Your task to perform on an android device: change your default location settings in chrome Image 0: 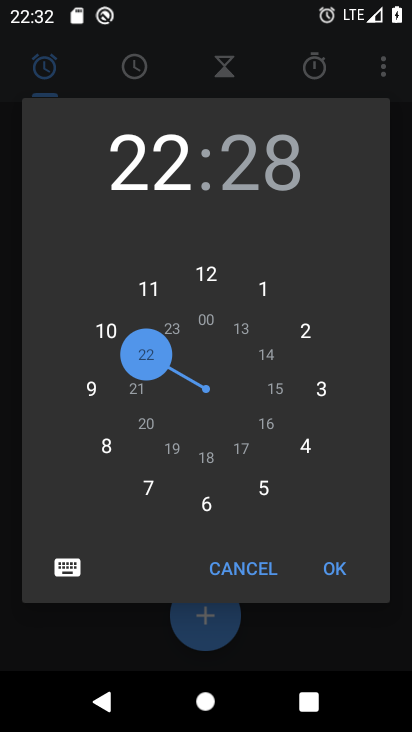
Step 0: press home button
Your task to perform on an android device: change your default location settings in chrome Image 1: 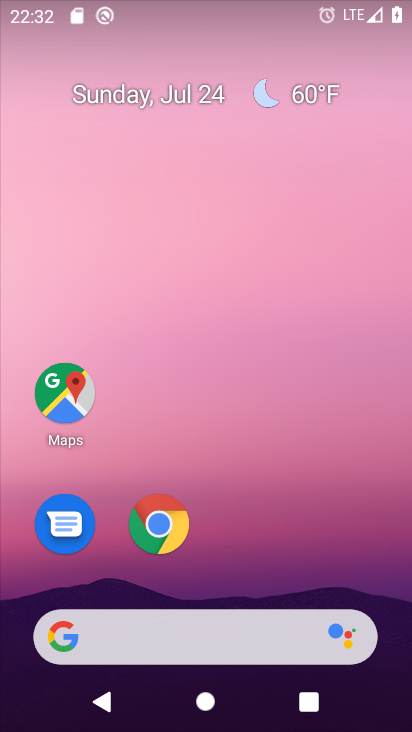
Step 1: click (162, 530)
Your task to perform on an android device: change your default location settings in chrome Image 2: 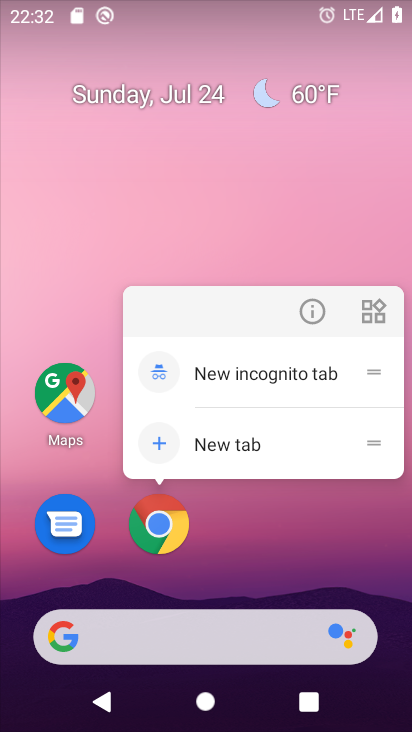
Step 2: click (160, 522)
Your task to perform on an android device: change your default location settings in chrome Image 3: 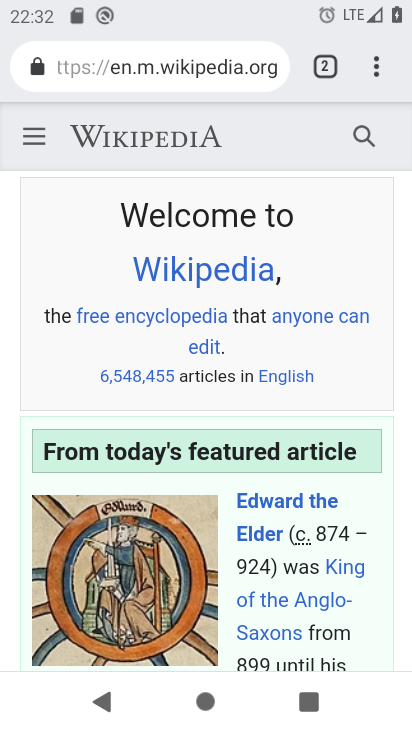
Step 3: click (366, 78)
Your task to perform on an android device: change your default location settings in chrome Image 4: 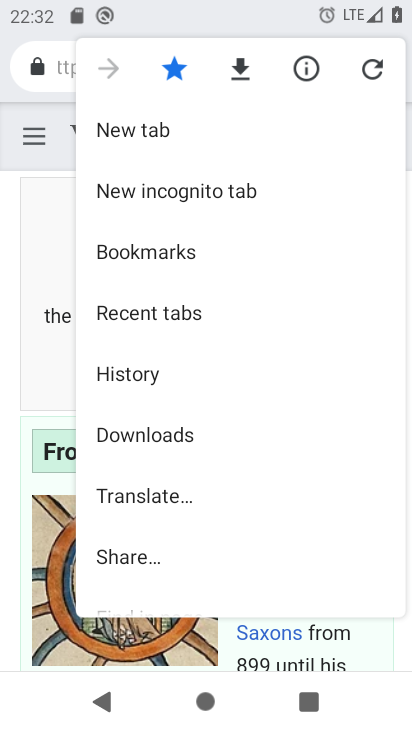
Step 4: drag from (243, 459) to (317, 137)
Your task to perform on an android device: change your default location settings in chrome Image 5: 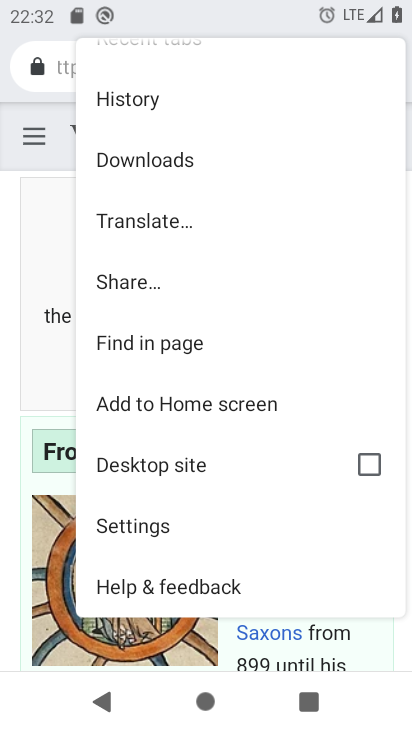
Step 5: click (149, 521)
Your task to perform on an android device: change your default location settings in chrome Image 6: 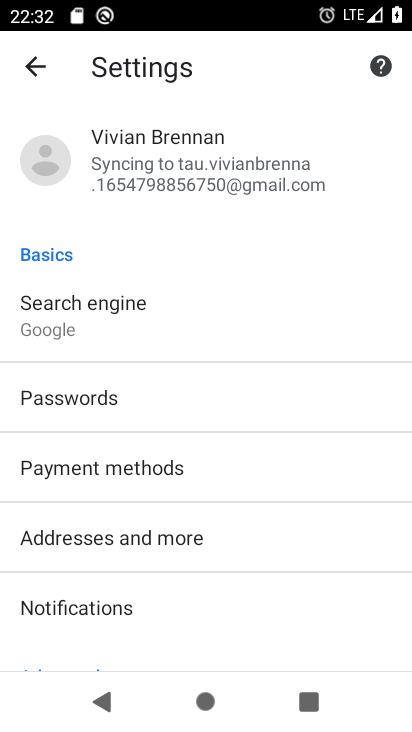
Step 6: drag from (201, 482) to (248, 249)
Your task to perform on an android device: change your default location settings in chrome Image 7: 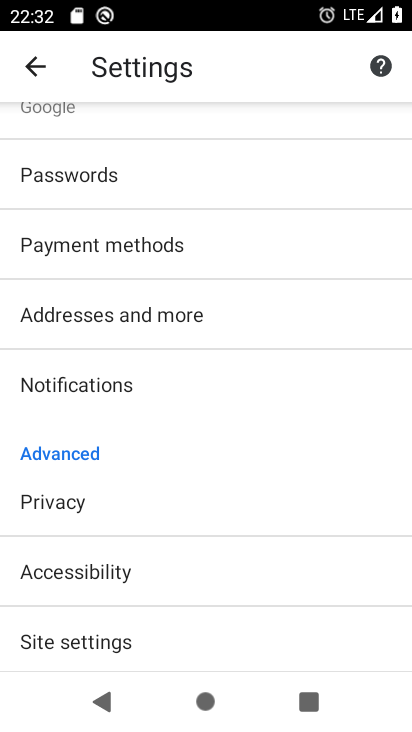
Step 7: click (125, 636)
Your task to perform on an android device: change your default location settings in chrome Image 8: 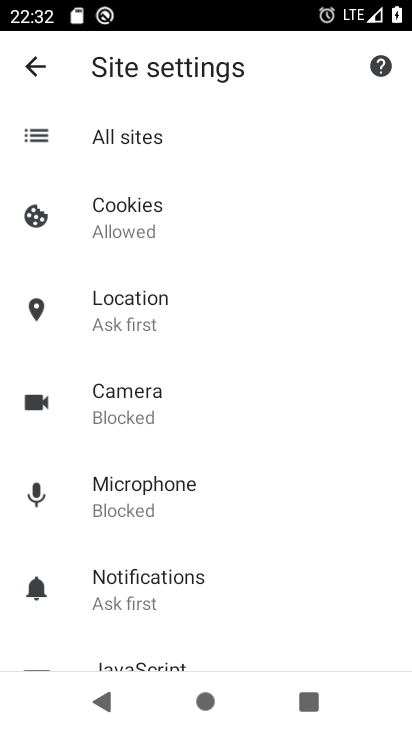
Step 8: click (154, 304)
Your task to perform on an android device: change your default location settings in chrome Image 9: 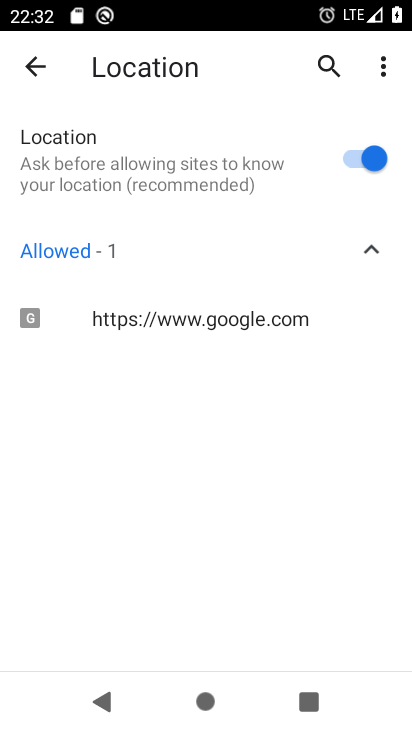
Step 9: click (358, 163)
Your task to perform on an android device: change your default location settings in chrome Image 10: 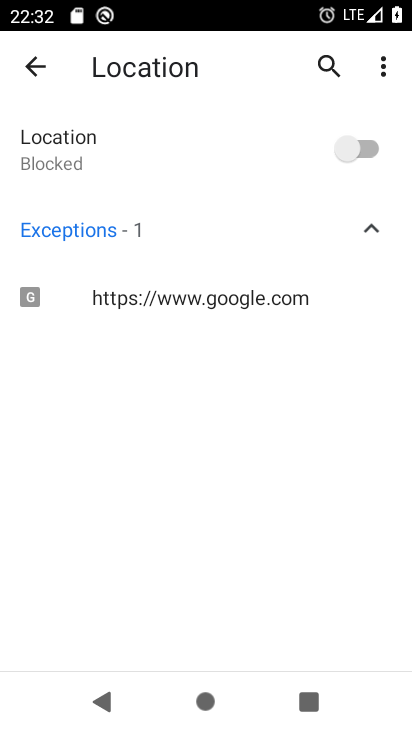
Step 10: task complete